Your task to perform on an android device: delete location history Image 0: 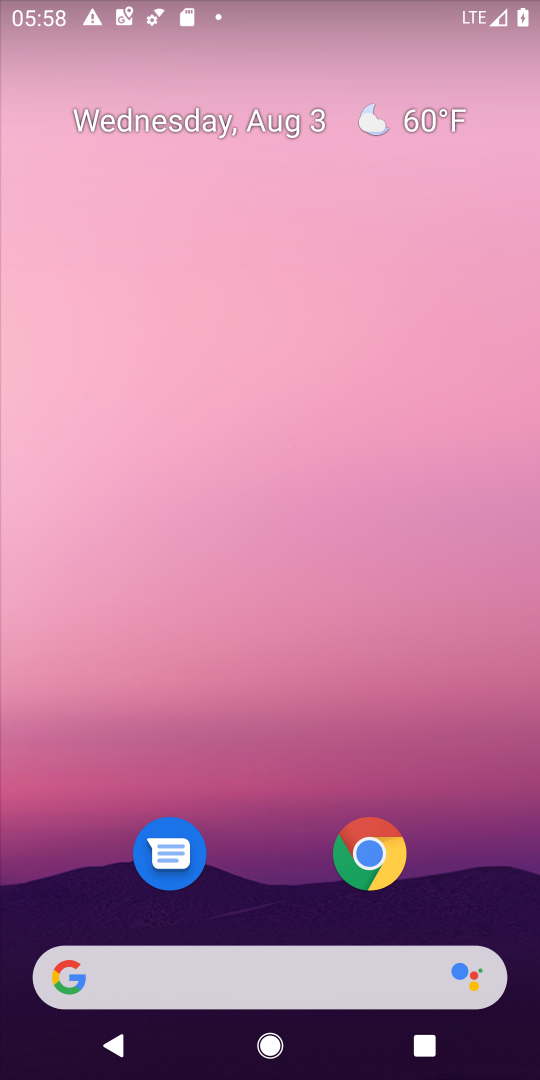
Step 0: drag from (314, 1041) to (298, 68)
Your task to perform on an android device: delete location history Image 1: 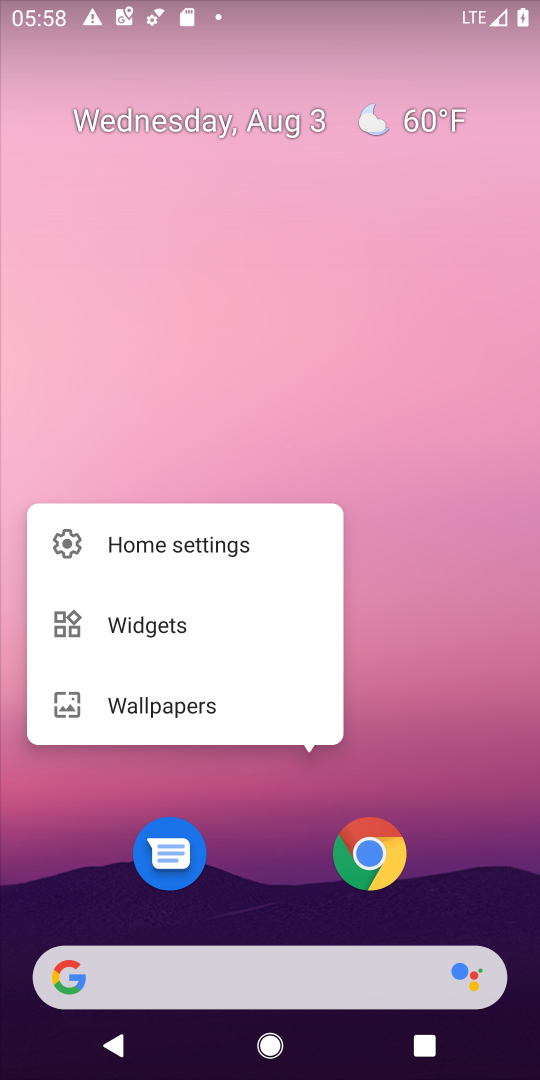
Step 1: click (302, 415)
Your task to perform on an android device: delete location history Image 2: 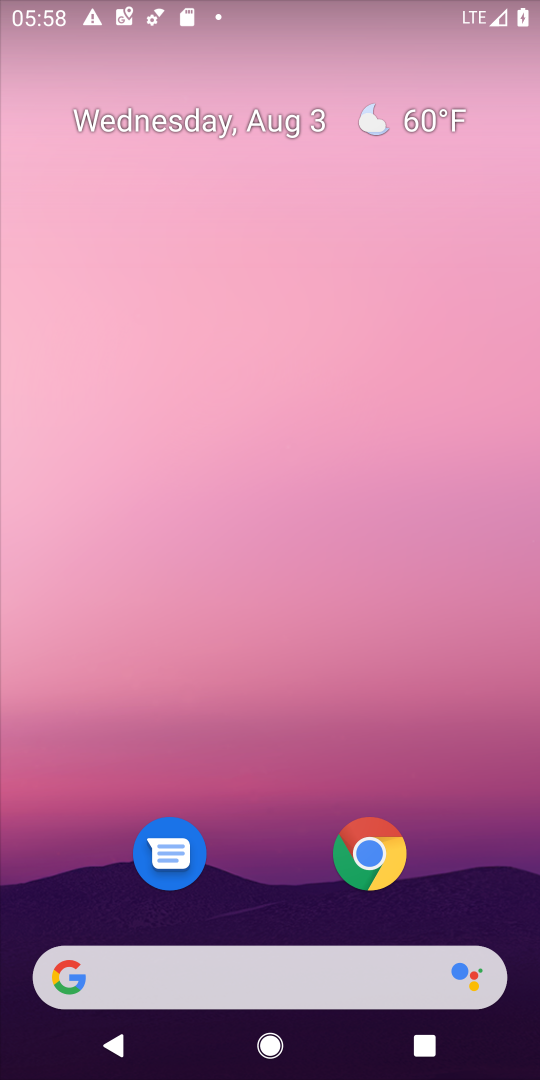
Step 2: drag from (248, 916) to (227, 142)
Your task to perform on an android device: delete location history Image 3: 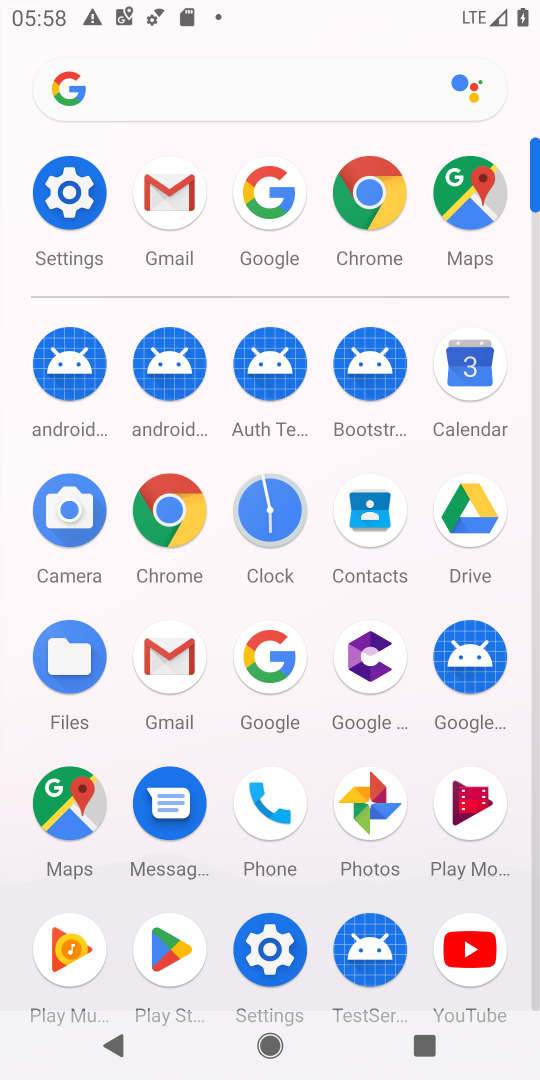
Step 3: click (465, 197)
Your task to perform on an android device: delete location history Image 4: 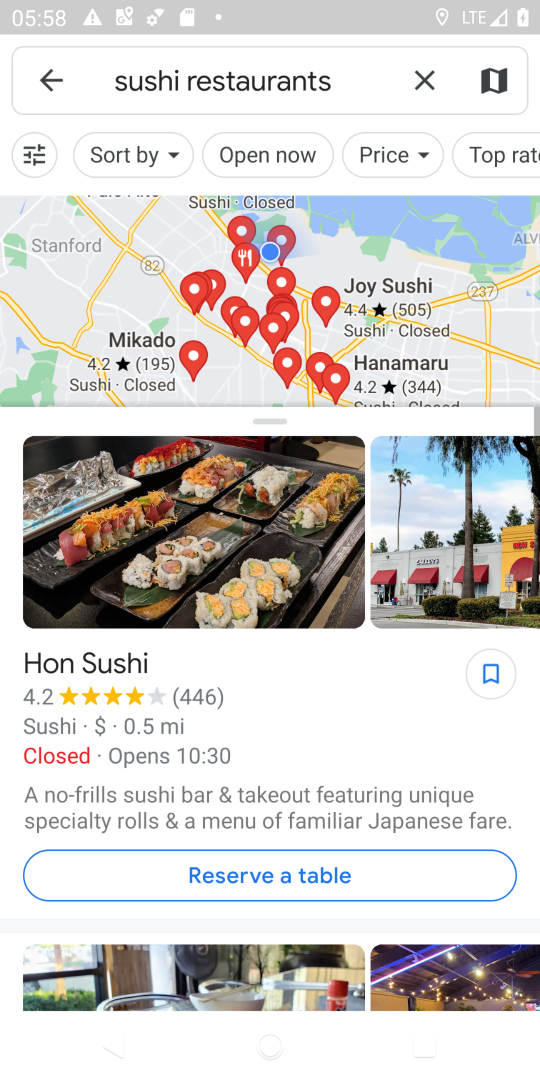
Step 4: click (51, 82)
Your task to perform on an android device: delete location history Image 5: 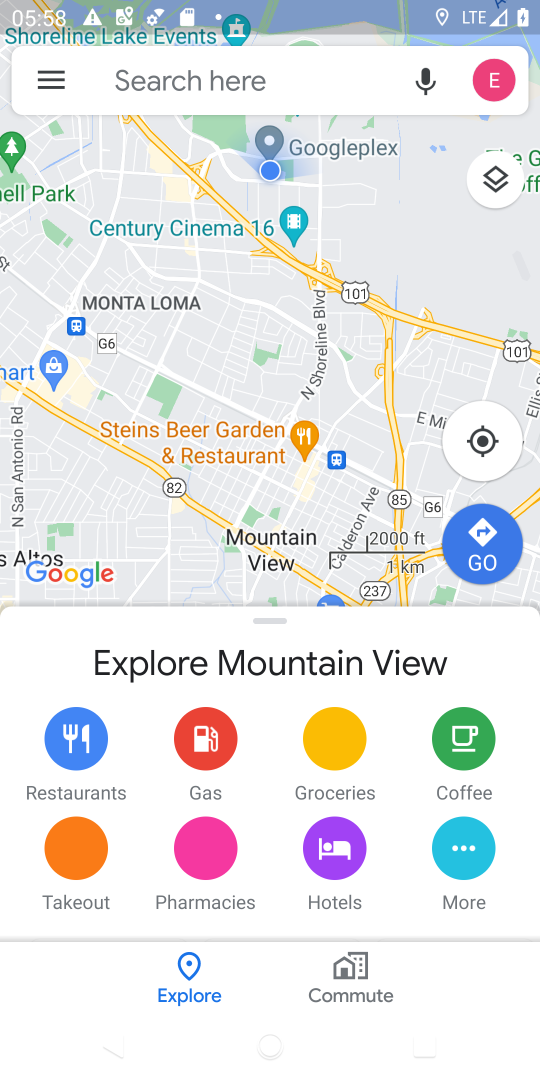
Step 5: click (52, 80)
Your task to perform on an android device: delete location history Image 6: 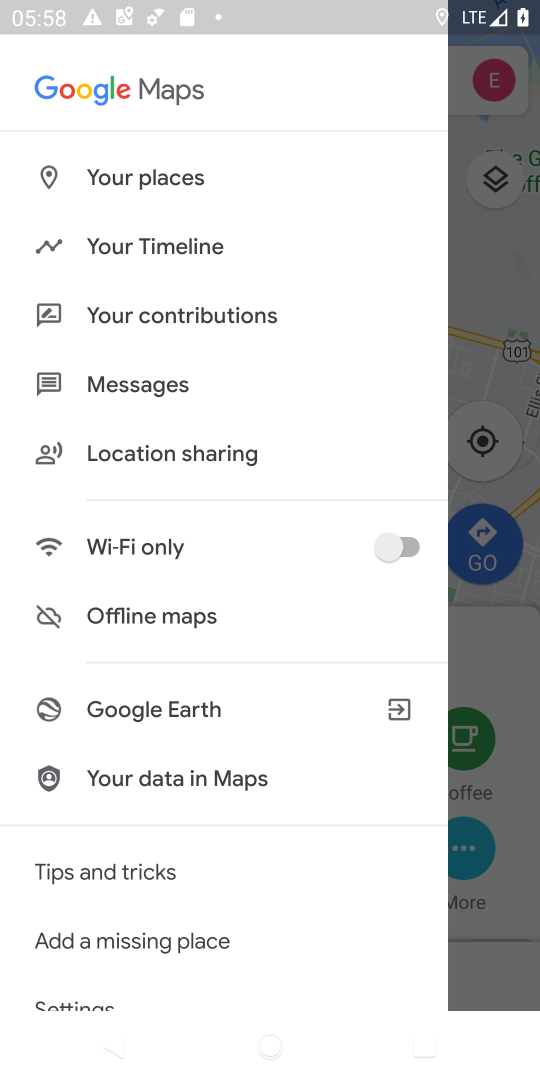
Step 6: click (166, 241)
Your task to perform on an android device: delete location history Image 7: 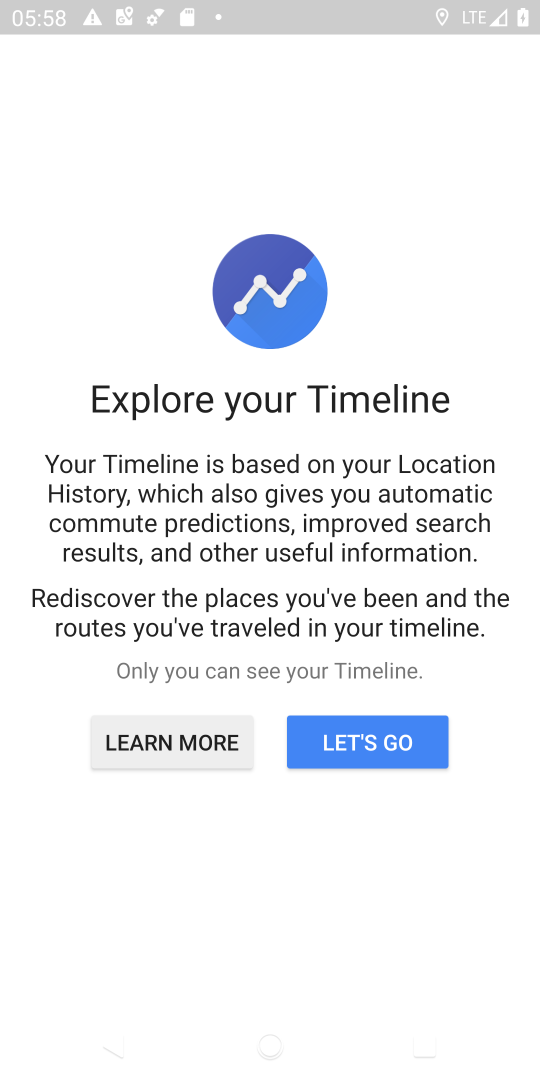
Step 7: click (354, 737)
Your task to perform on an android device: delete location history Image 8: 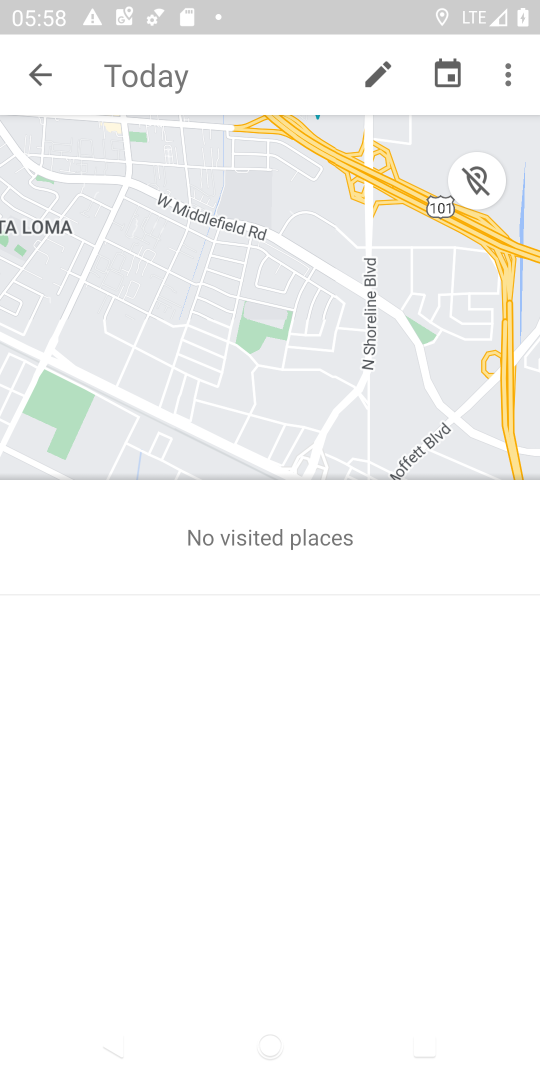
Step 8: click (507, 78)
Your task to perform on an android device: delete location history Image 9: 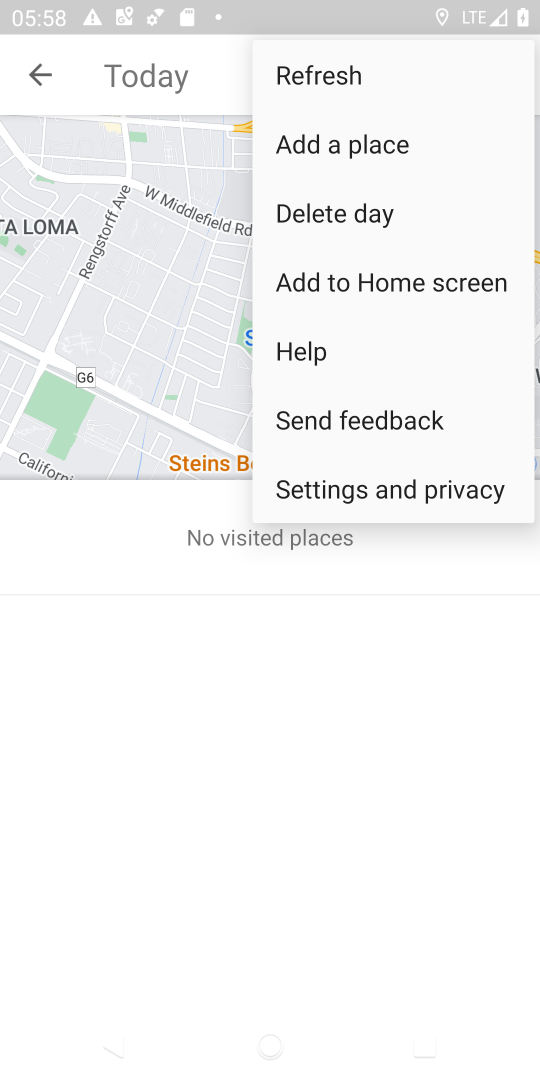
Step 9: click (371, 485)
Your task to perform on an android device: delete location history Image 10: 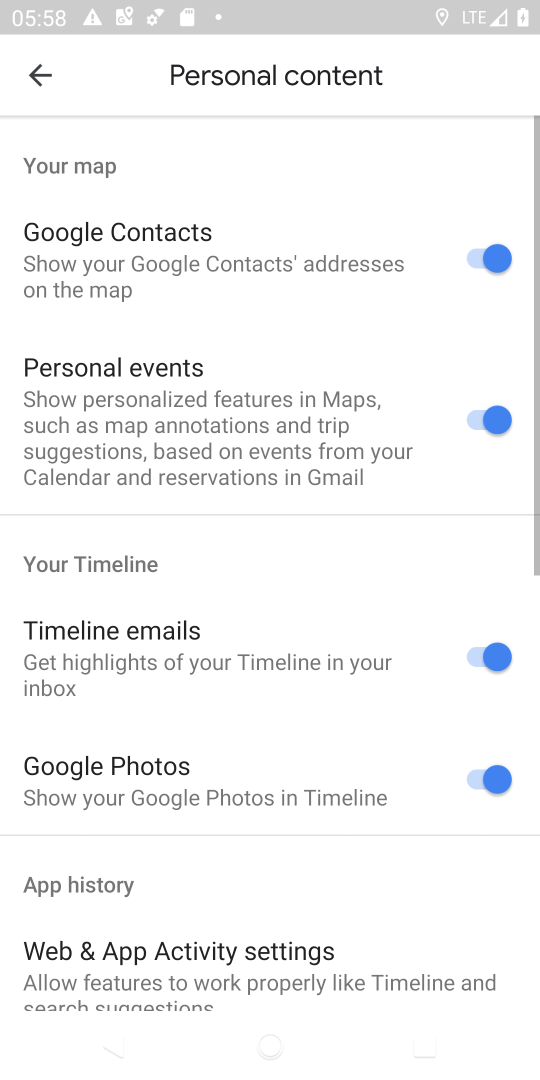
Step 10: drag from (217, 895) to (240, 423)
Your task to perform on an android device: delete location history Image 11: 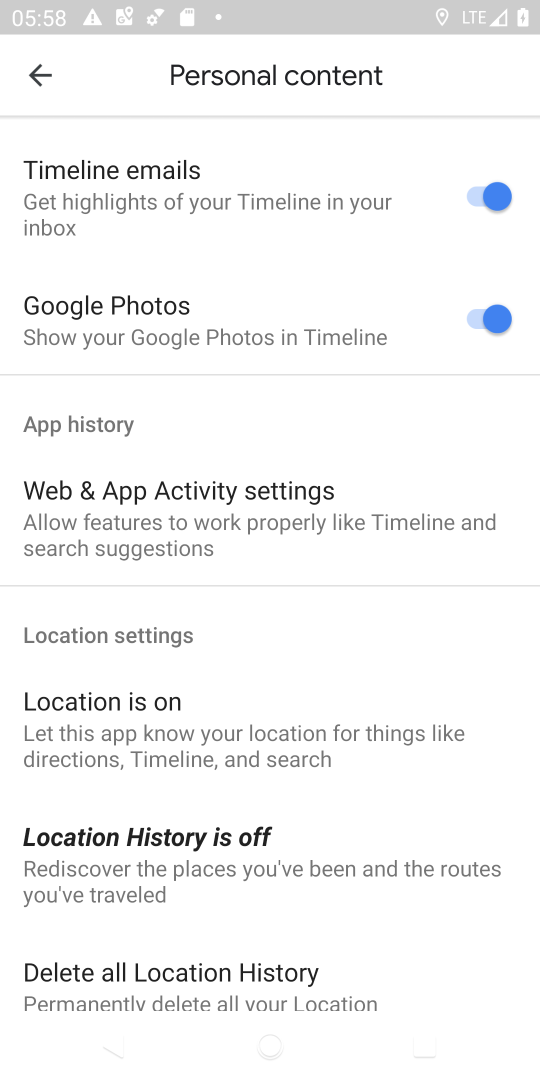
Step 11: click (186, 967)
Your task to perform on an android device: delete location history Image 12: 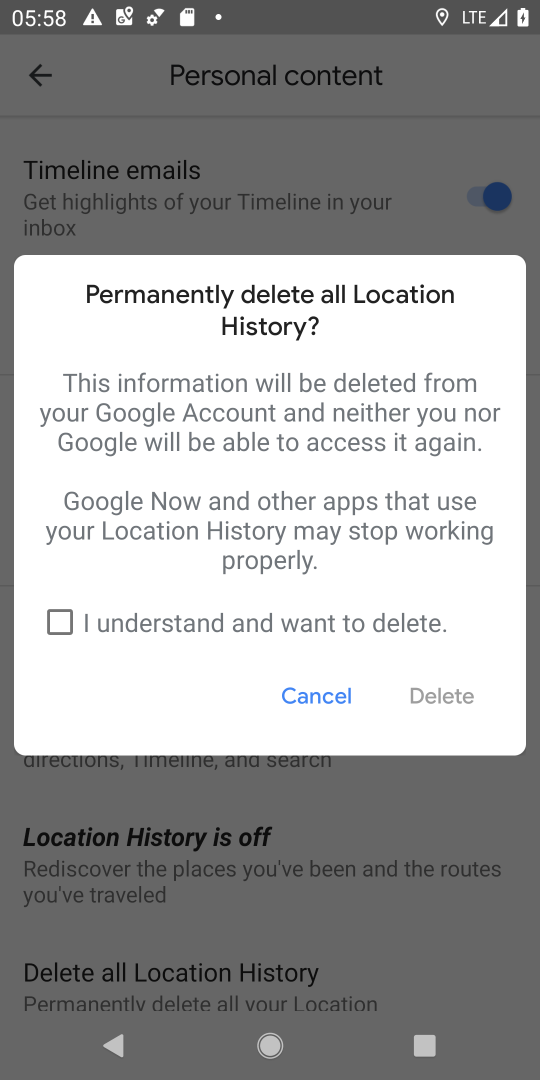
Step 12: click (62, 617)
Your task to perform on an android device: delete location history Image 13: 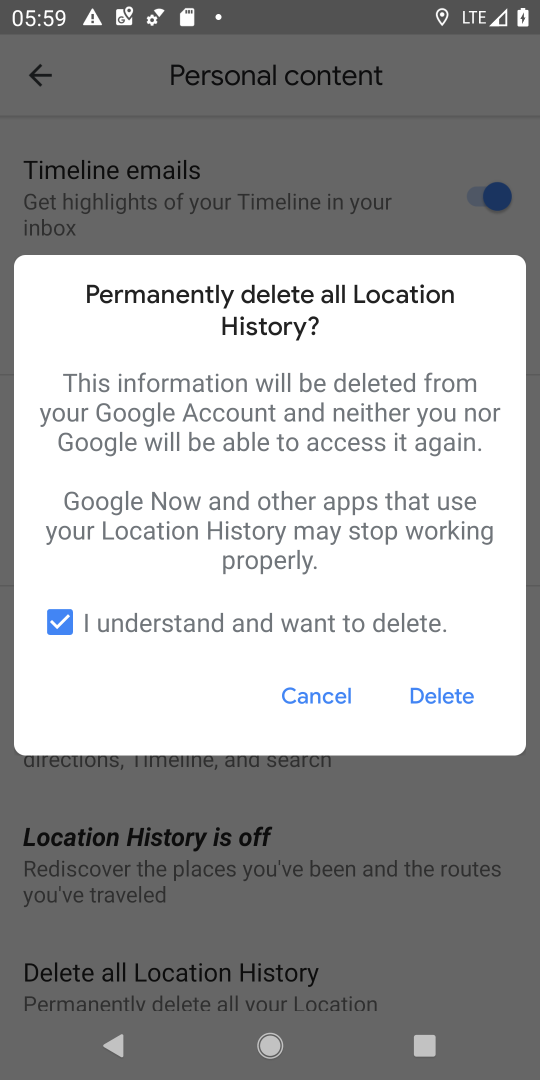
Step 13: click (450, 677)
Your task to perform on an android device: delete location history Image 14: 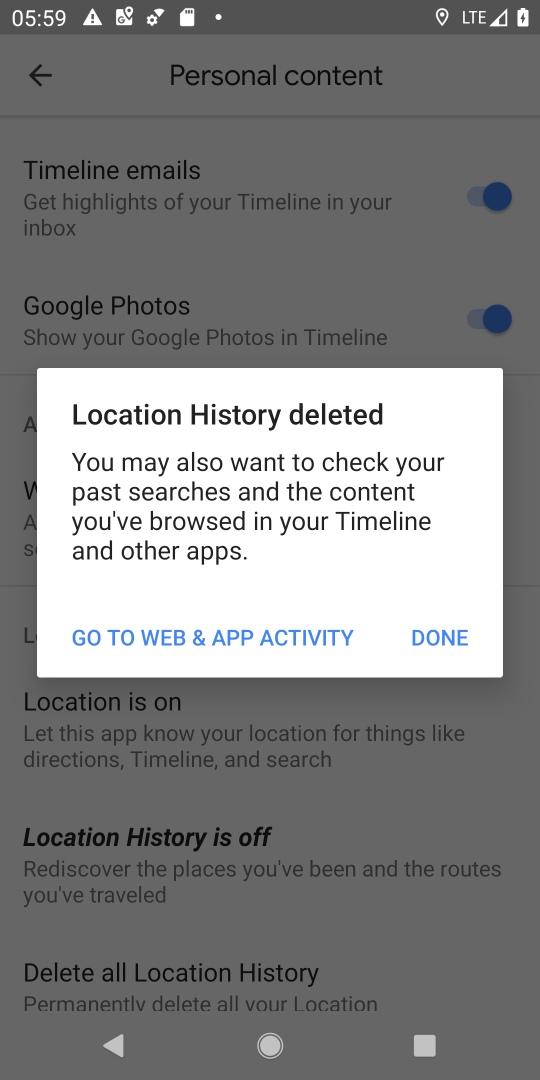
Step 14: click (443, 635)
Your task to perform on an android device: delete location history Image 15: 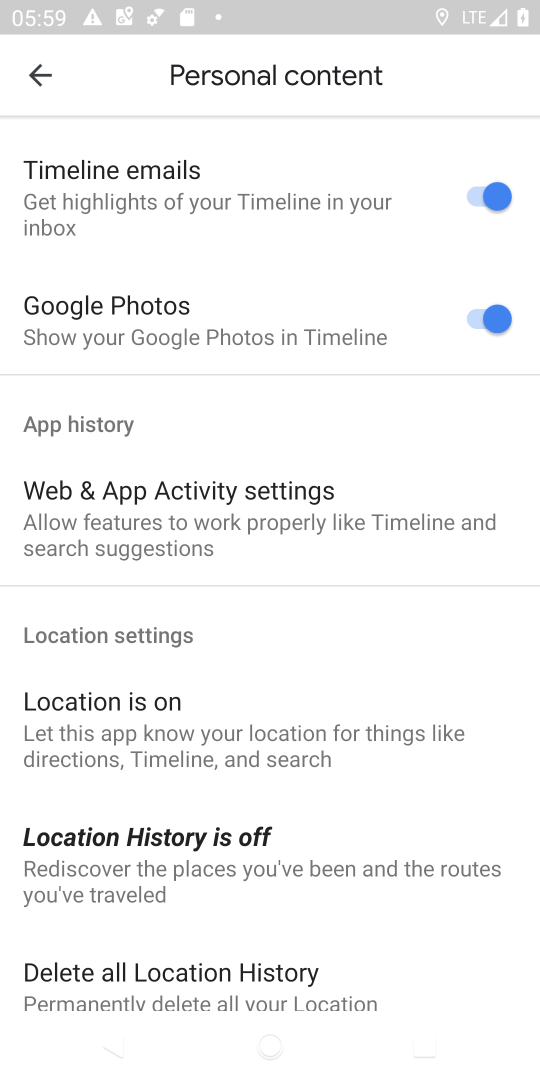
Step 15: task complete